Your task to perform on an android device: turn on bluetooth scan Image 0: 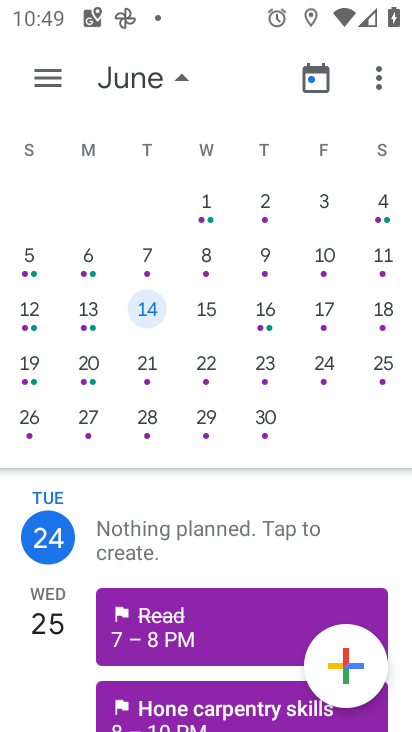
Step 0: press home button
Your task to perform on an android device: turn on bluetooth scan Image 1: 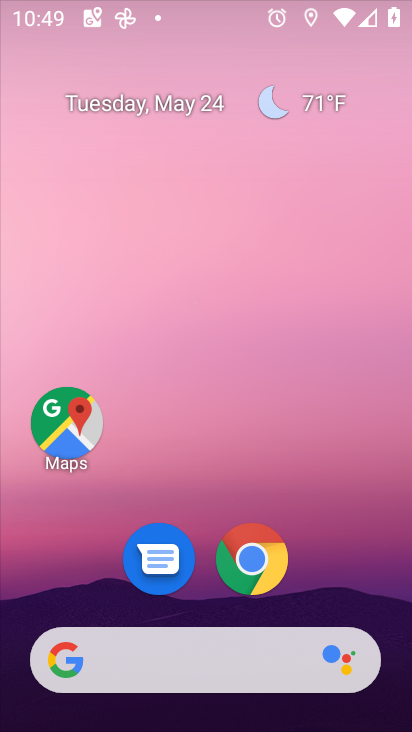
Step 1: drag from (388, 634) to (305, 46)
Your task to perform on an android device: turn on bluetooth scan Image 2: 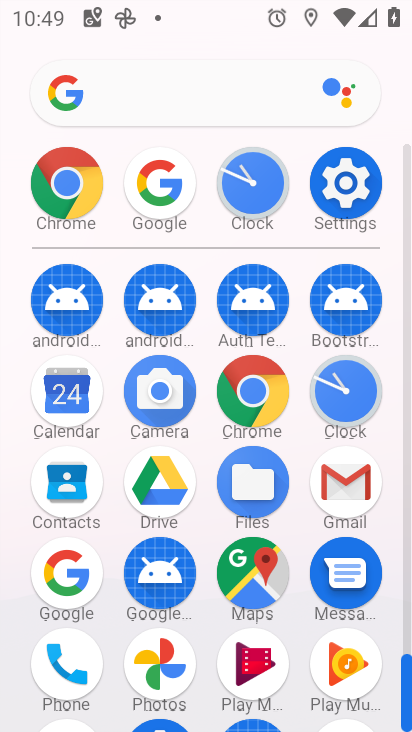
Step 2: click (343, 203)
Your task to perform on an android device: turn on bluetooth scan Image 3: 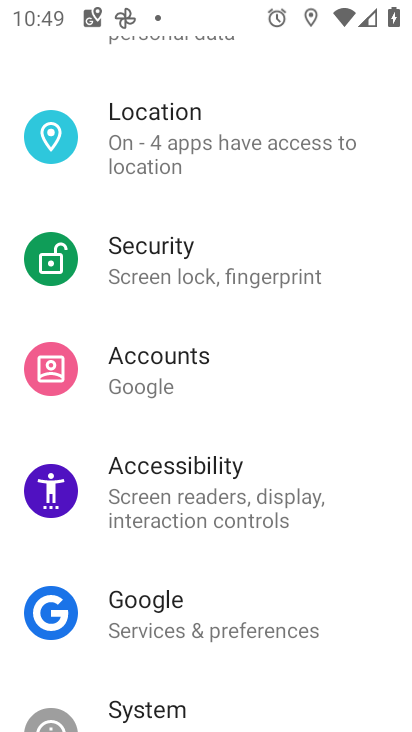
Step 3: click (123, 179)
Your task to perform on an android device: turn on bluetooth scan Image 4: 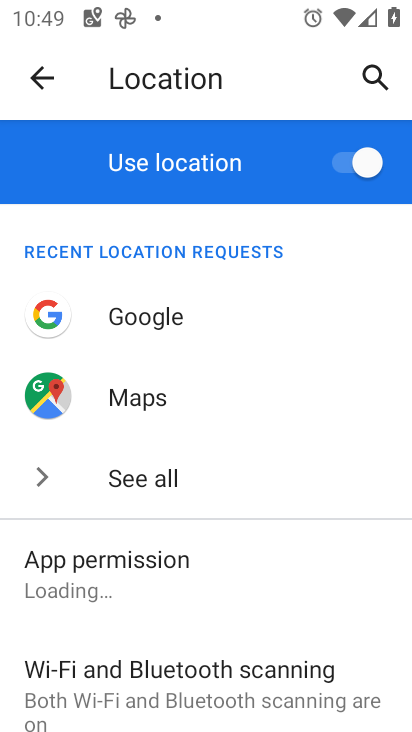
Step 4: click (230, 670)
Your task to perform on an android device: turn on bluetooth scan Image 5: 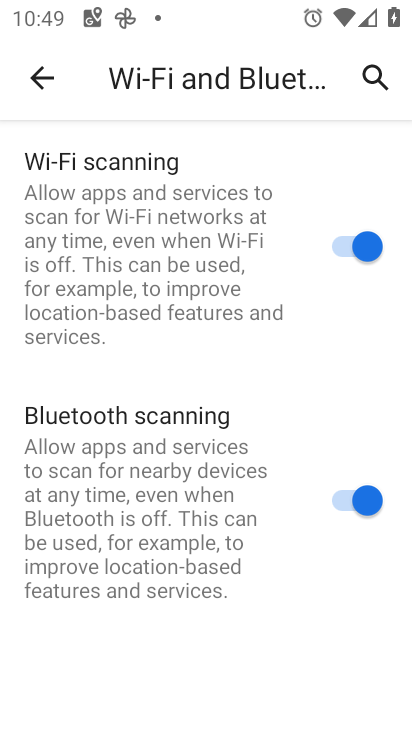
Step 5: task complete